Your task to perform on an android device: change notifications settings Image 0: 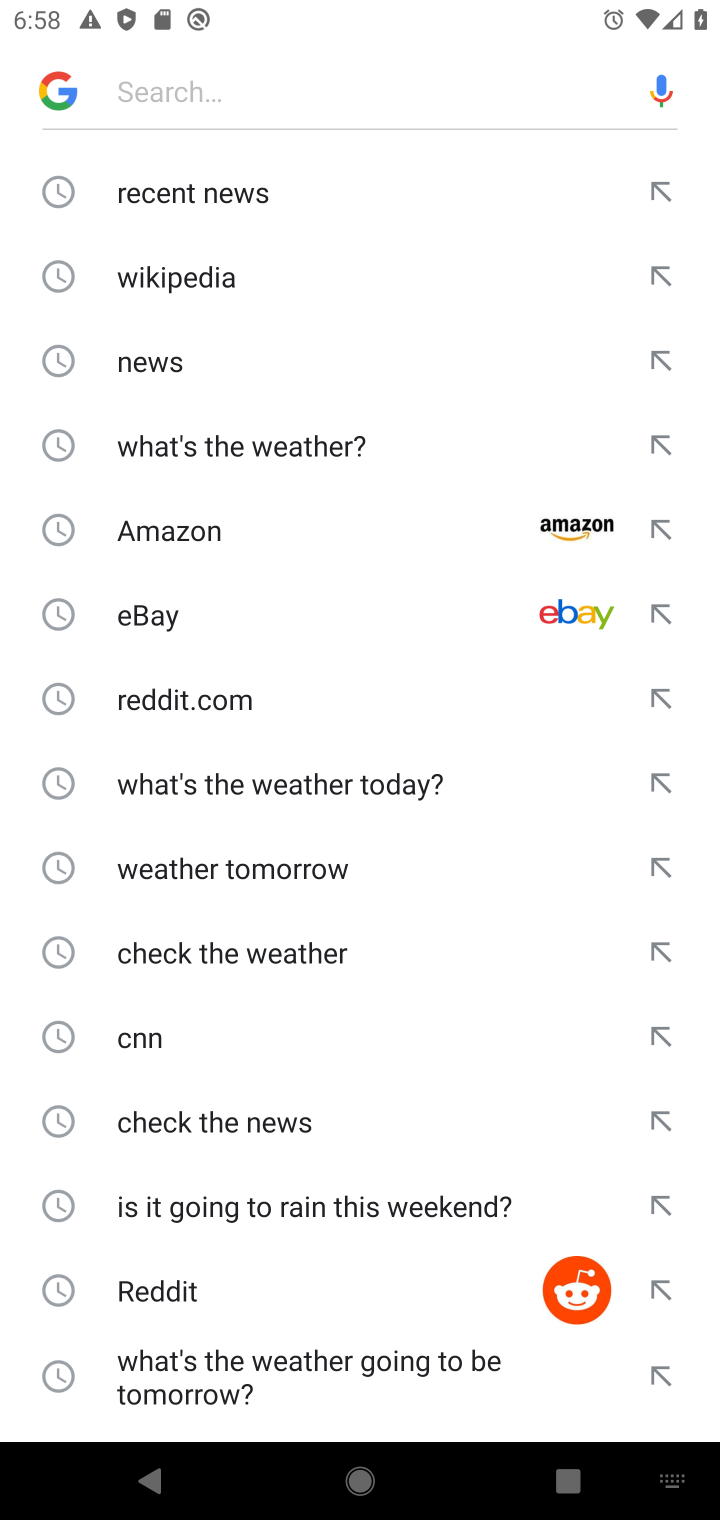
Step 0: press home button
Your task to perform on an android device: change notifications settings Image 1: 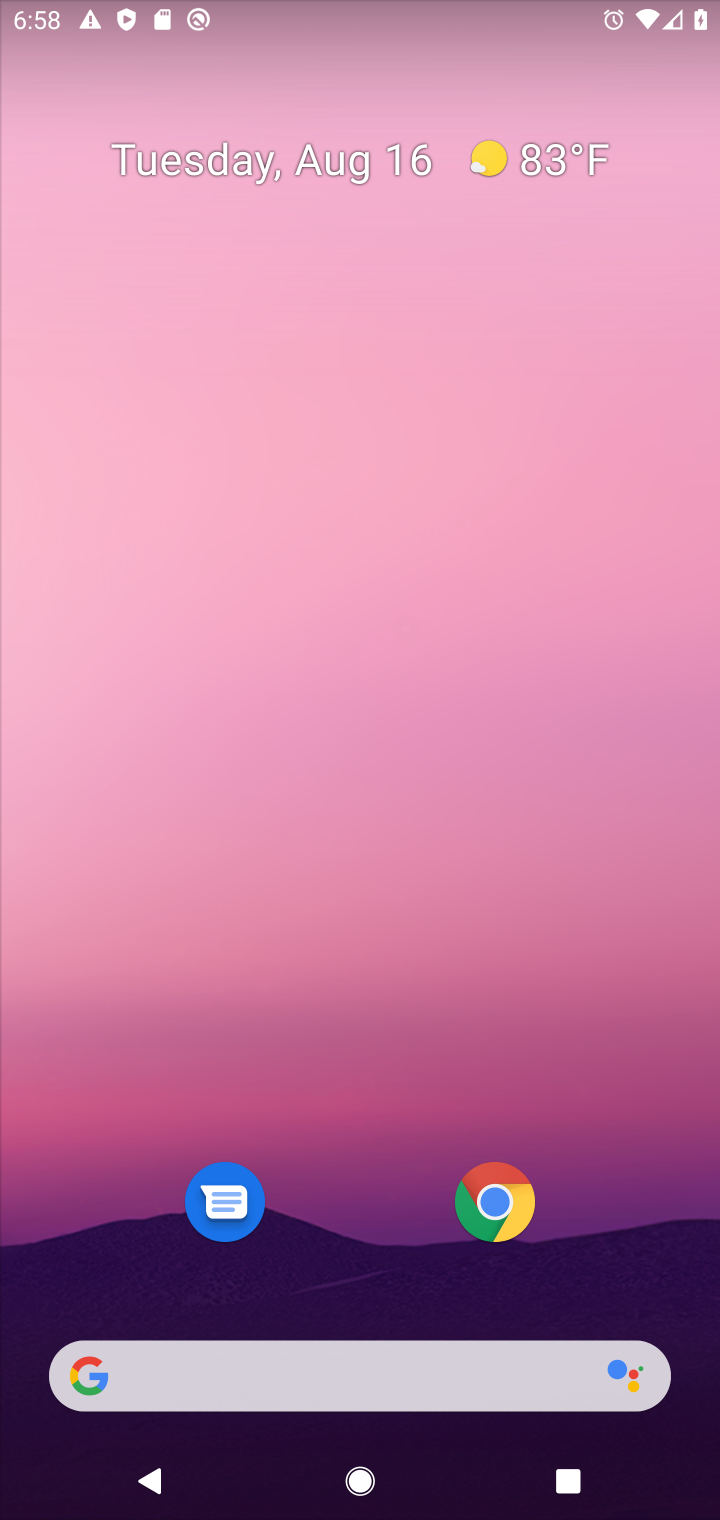
Step 1: drag from (671, 1272) to (612, 6)
Your task to perform on an android device: change notifications settings Image 2: 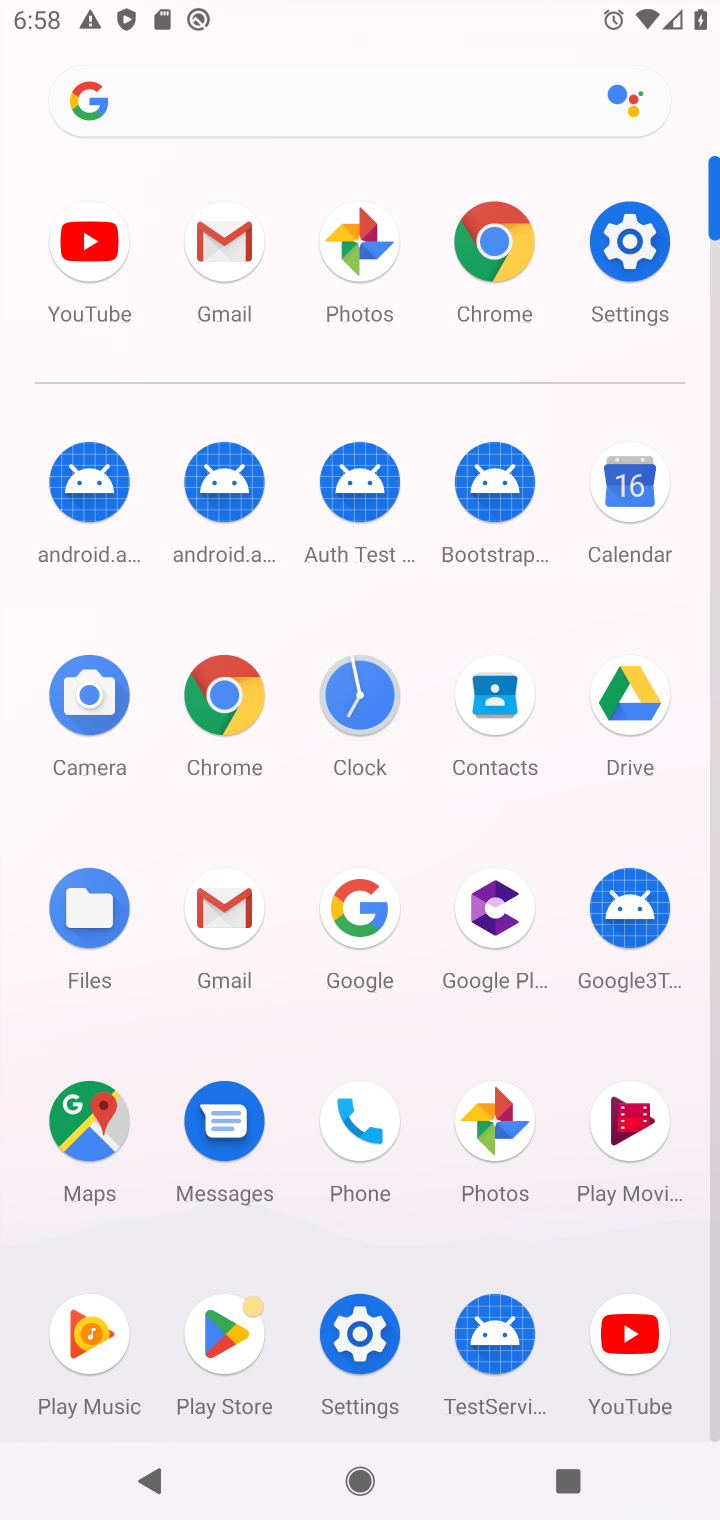
Step 2: click (366, 1325)
Your task to perform on an android device: change notifications settings Image 3: 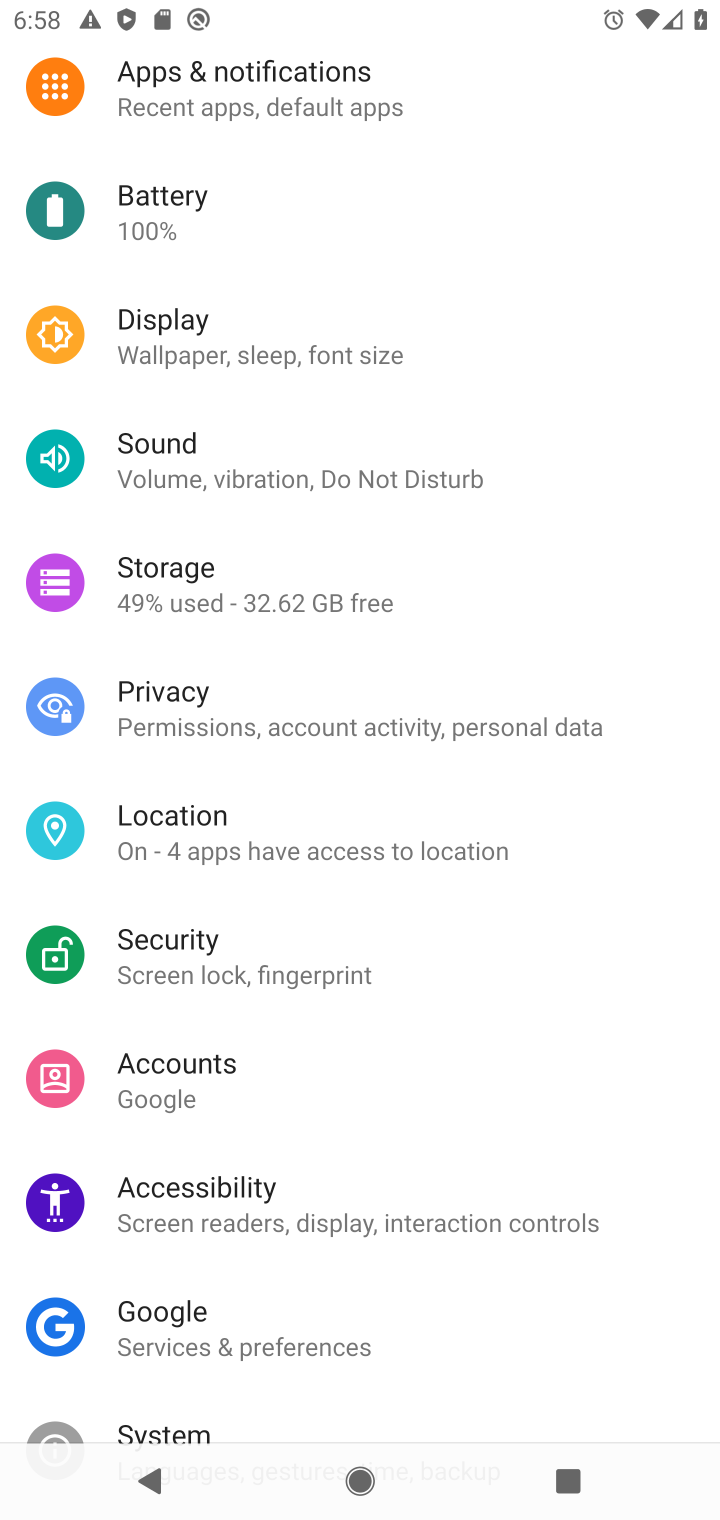
Step 3: click (214, 107)
Your task to perform on an android device: change notifications settings Image 4: 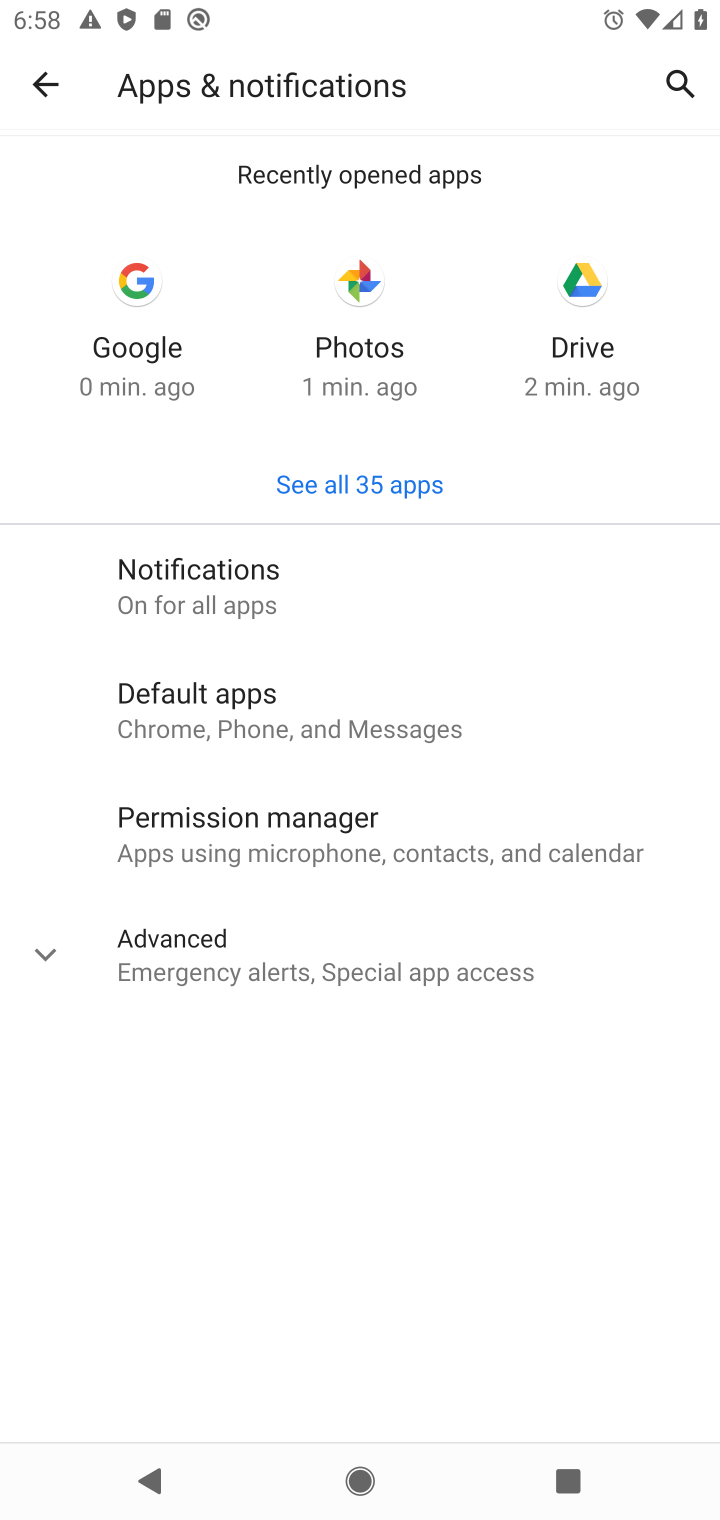
Step 4: task complete